Your task to perform on an android device: delete the emails in spam in the gmail app Image 0: 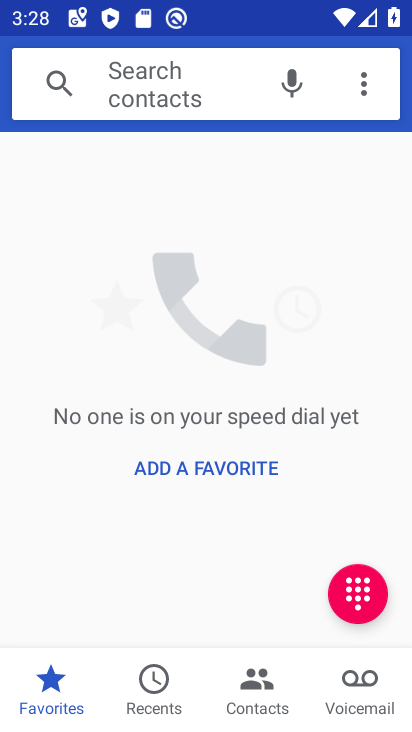
Step 0: press home button
Your task to perform on an android device: delete the emails in spam in the gmail app Image 1: 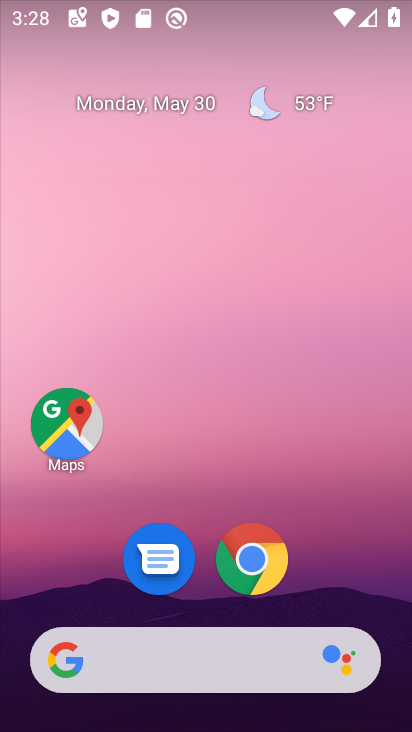
Step 1: drag from (214, 723) to (213, 107)
Your task to perform on an android device: delete the emails in spam in the gmail app Image 2: 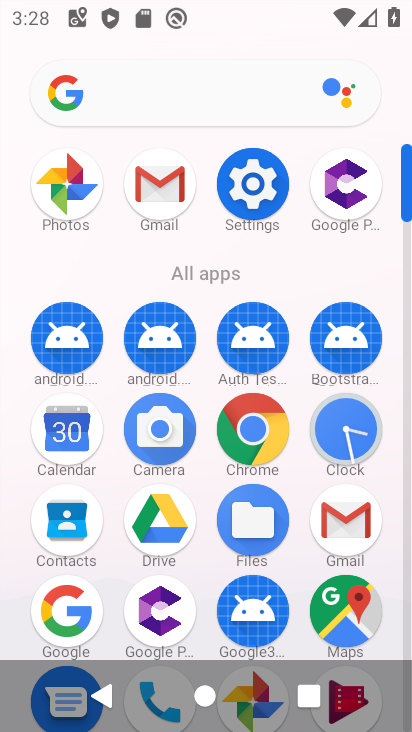
Step 2: click (356, 518)
Your task to perform on an android device: delete the emails in spam in the gmail app Image 3: 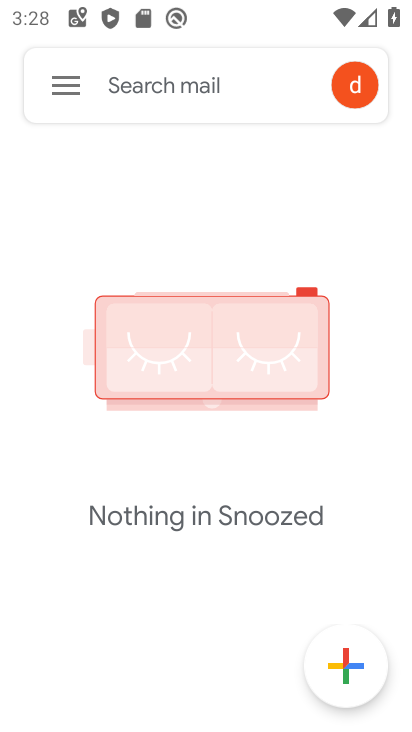
Step 3: click (57, 81)
Your task to perform on an android device: delete the emails in spam in the gmail app Image 4: 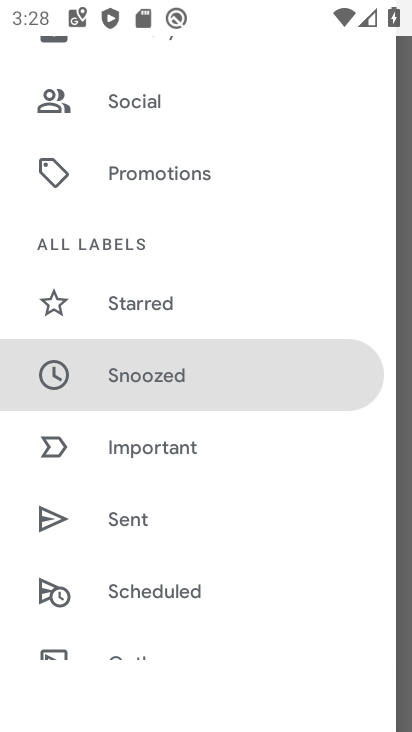
Step 4: drag from (182, 151) to (202, 500)
Your task to perform on an android device: delete the emails in spam in the gmail app Image 5: 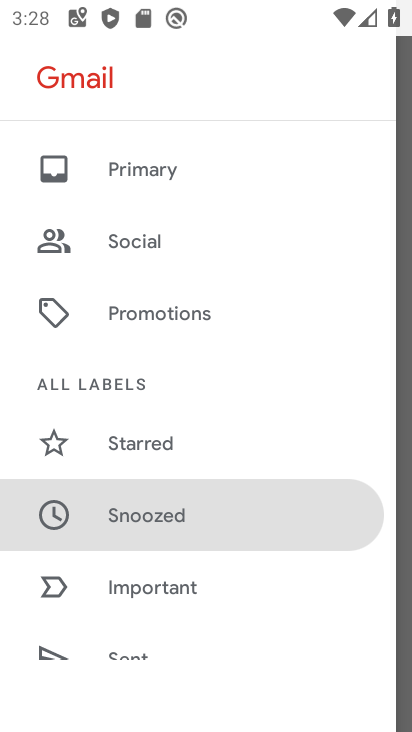
Step 5: drag from (186, 633) to (161, 331)
Your task to perform on an android device: delete the emails in spam in the gmail app Image 6: 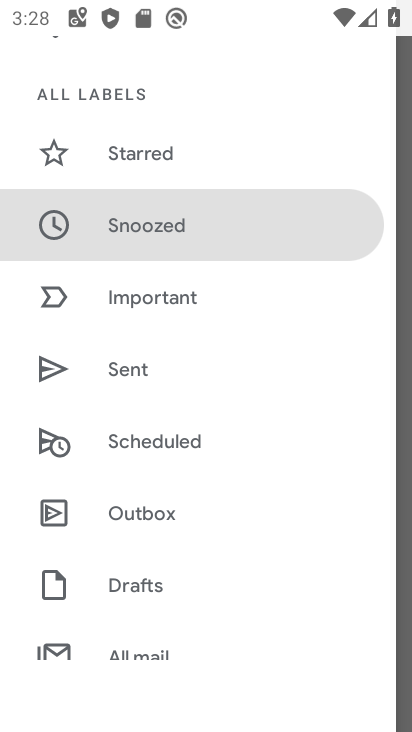
Step 6: drag from (180, 653) to (183, 287)
Your task to perform on an android device: delete the emails in spam in the gmail app Image 7: 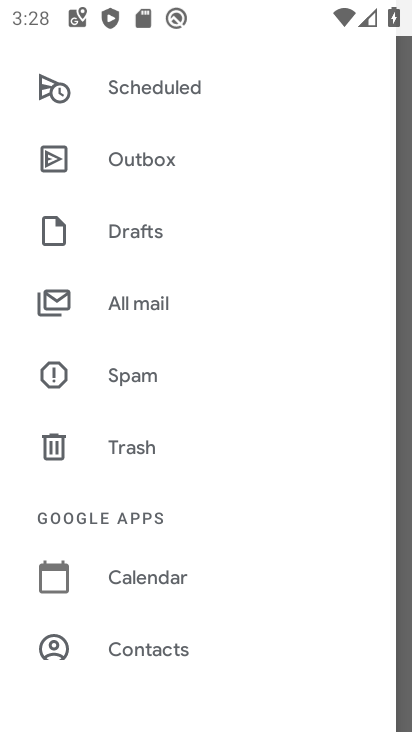
Step 7: click (133, 371)
Your task to perform on an android device: delete the emails in spam in the gmail app Image 8: 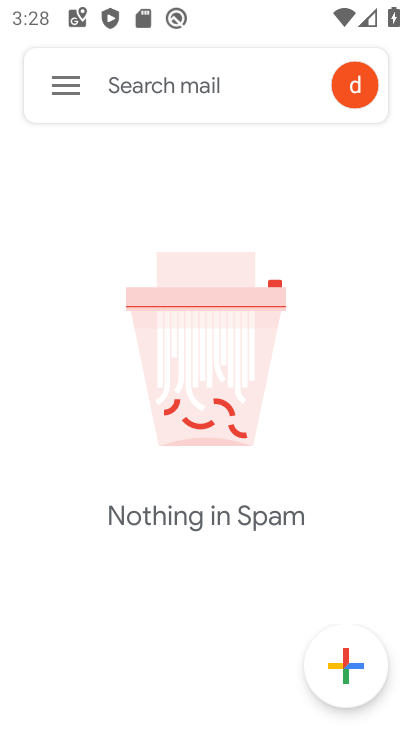
Step 8: task complete